Your task to perform on an android device: change the clock display to show seconds Image 0: 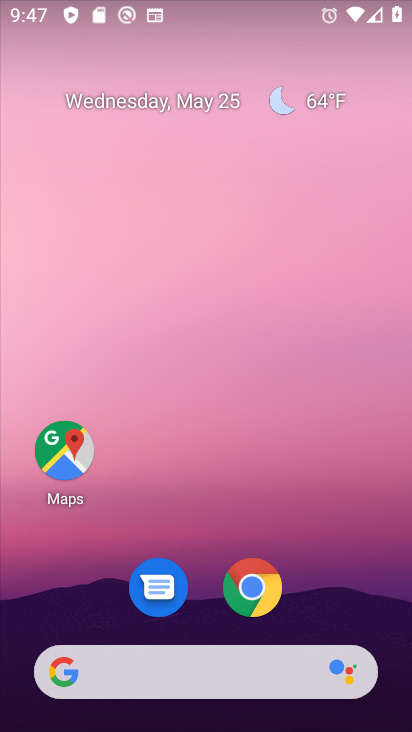
Step 0: drag from (81, 644) to (168, 214)
Your task to perform on an android device: change the clock display to show seconds Image 1: 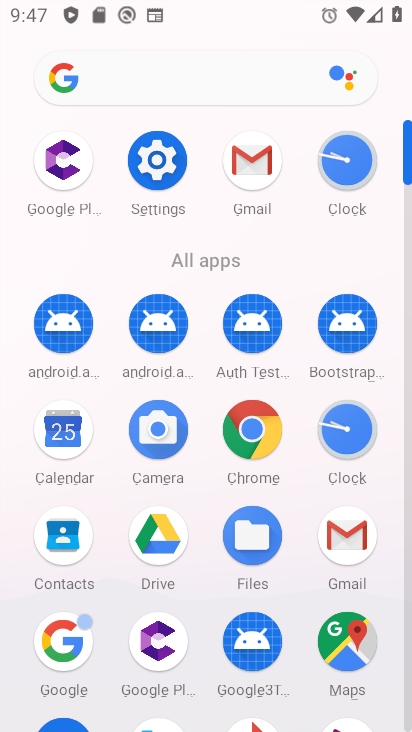
Step 1: click (363, 427)
Your task to perform on an android device: change the clock display to show seconds Image 2: 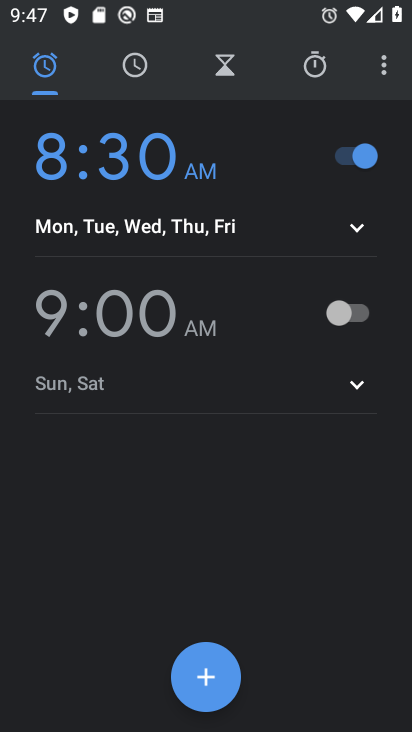
Step 2: click (384, 70)
Your task to perform on an android device: change the clock display to show seconds Image 3: 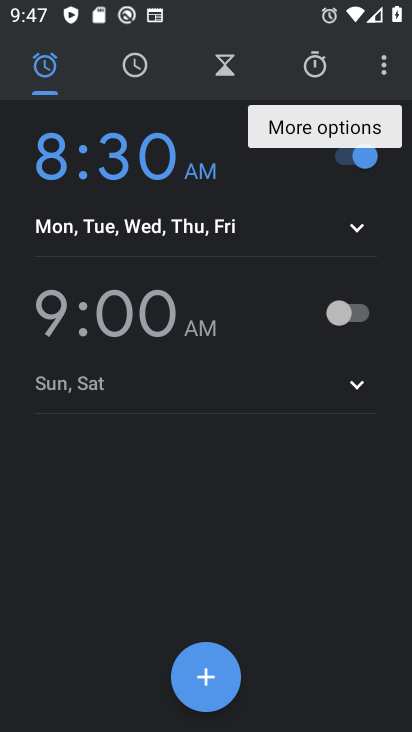
Step 3: click (395, 68)
Your task to perform on an android device: change the clock display to show seconds Image 4: 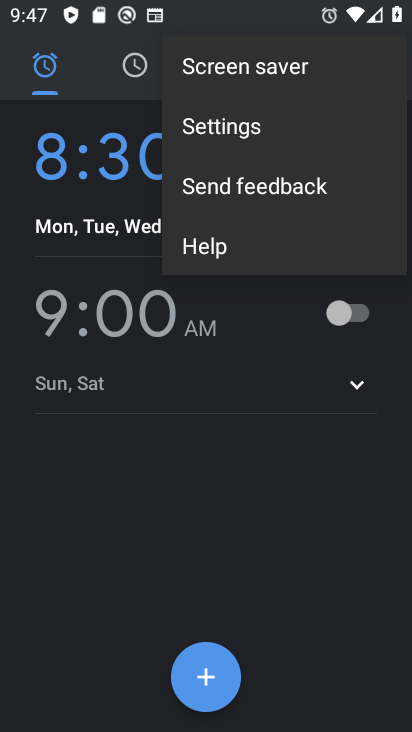
Step 4: click (285, 132)
Your task to perform on an android device: change the clock display to show seconds Image 5: 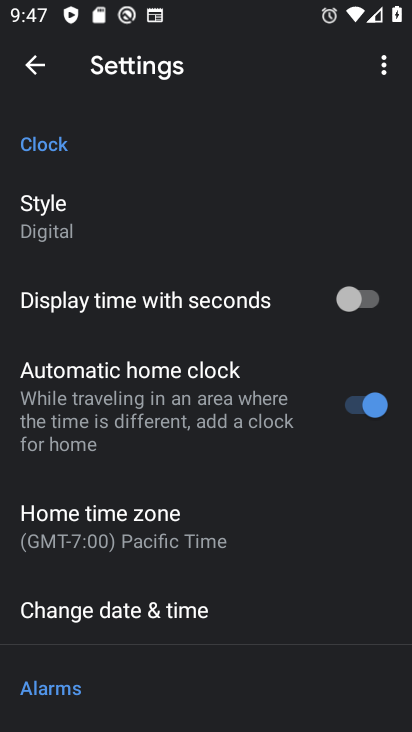
Step 5: click (383, 303)
Your task to perform on an android device: change the clock display to show seconds Image 6: 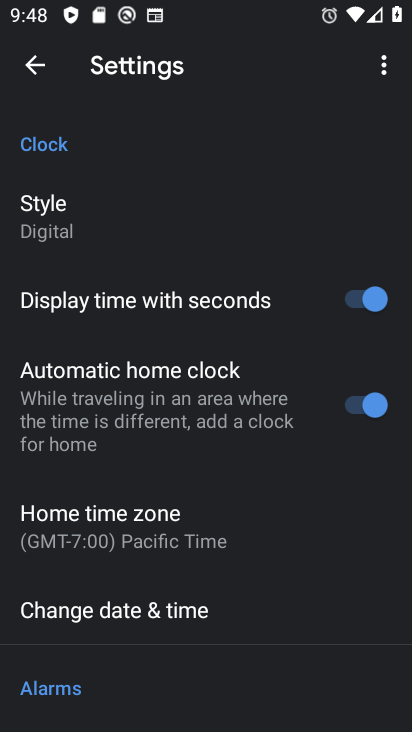
Step 6: task complete